Your task to perform on an android device: allow cookies in the chrome app Image 0: 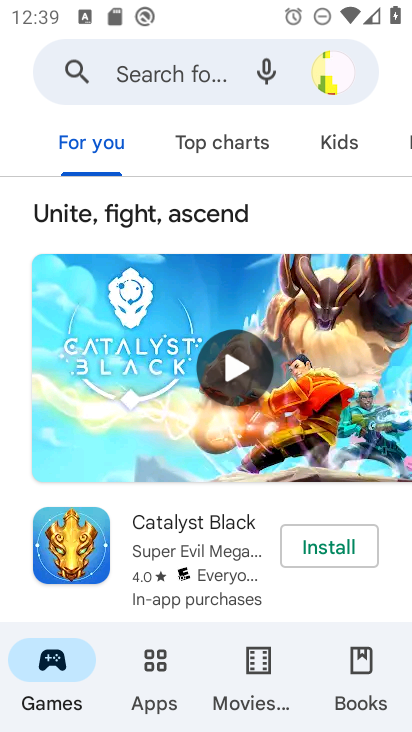
Step 0: press home button
Your task to perform on an android device: allow cookies in the chrome app Image 1: 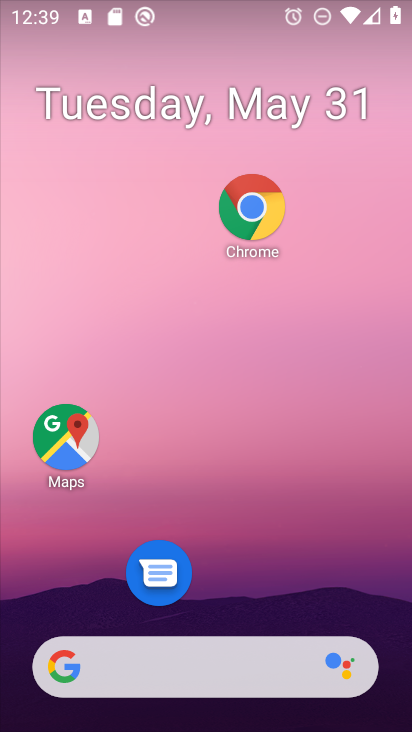
Step 1: click (257, 241)
Your task to perform on an android device: allow cookies in the chrome app Image 2: 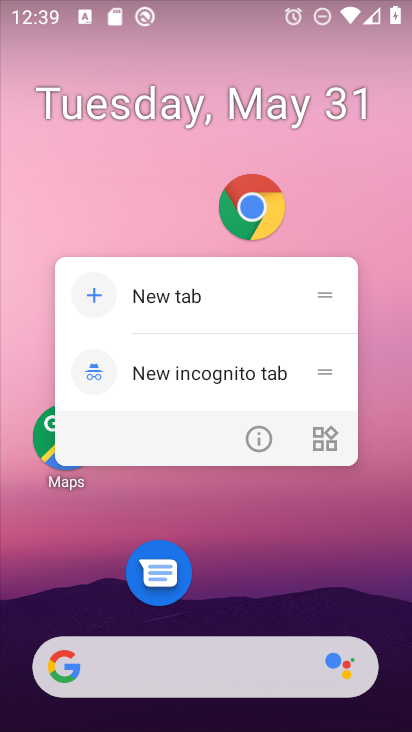
Step 2: click (256, 242)
Your task to perform on an android device: allow cookies in the chrome app Image 3: 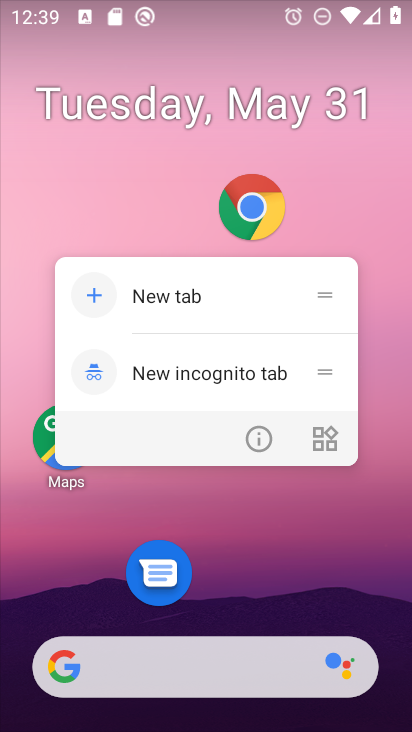
Step 3: click (250, 232)
Your task to perform on an android device: allow cookies in the chrome app Image 4: 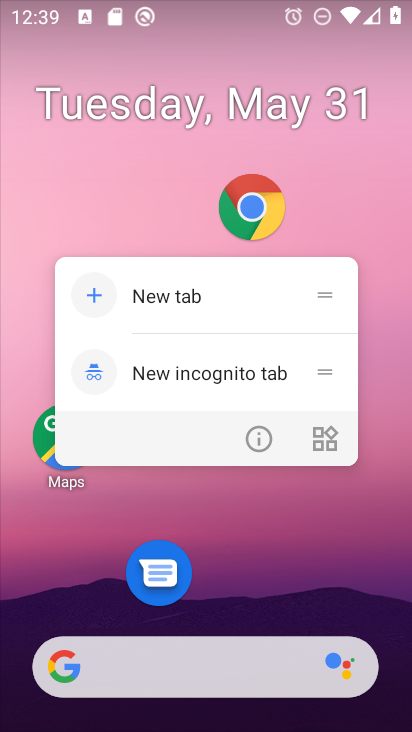
Step 4: click (246, 224)
Your task to perform on an android device: allow cookies in the chrome app Image 5: 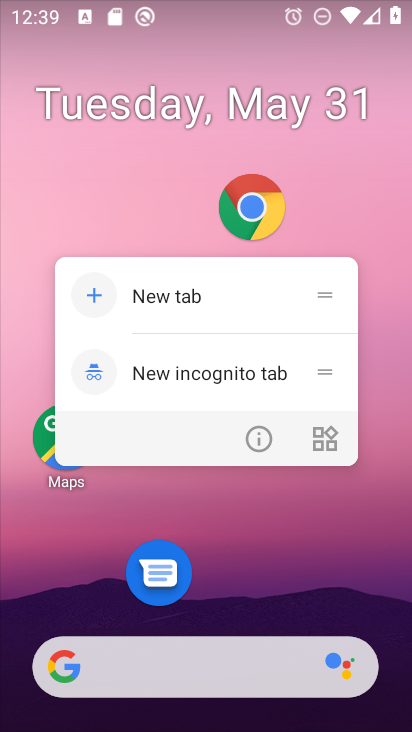
Step 5: click (253, 232)
Your task to perform on an android device: allow cookies in the chrome app Image 6: 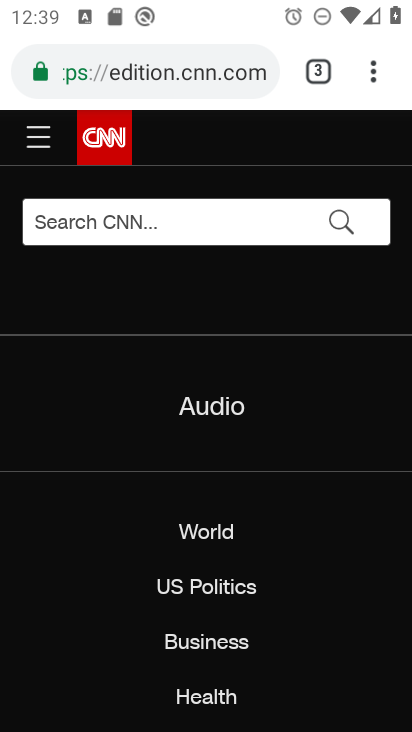
Step 6: click (374, 69)
Your task to perform on an android device: allow cookies in the chrome app Image 7: 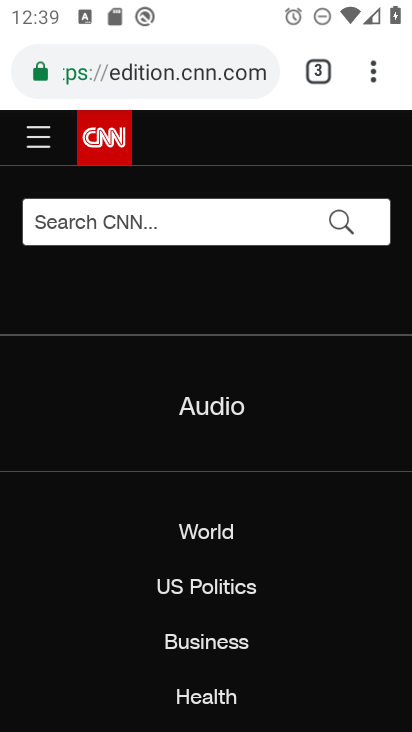
Step 7: click (375, 73)
Your task to perform on an android device: allow cookies in the chrome app Image 8: 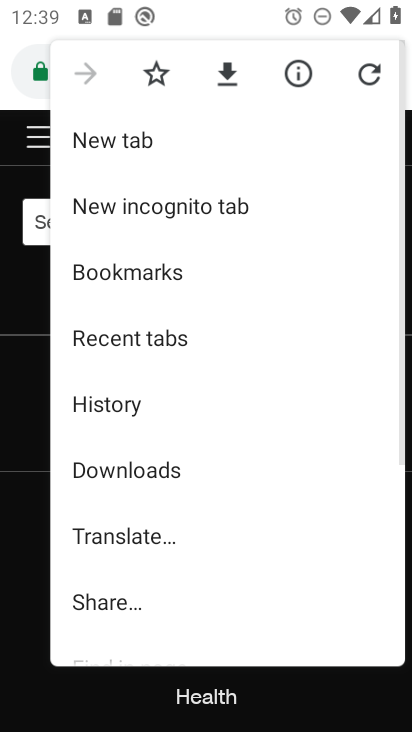
Step 8: drag from (222, 516) to (233, 187)
Your task to perform on an android device: allow cookies in the chrome app Image 9: 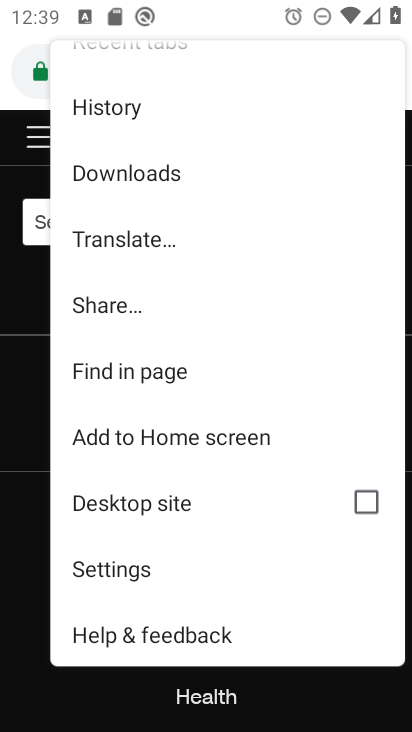
Step 9: click (123, 570)
Your task to perform on an android device: allow cookies in the chrome app Image 10: 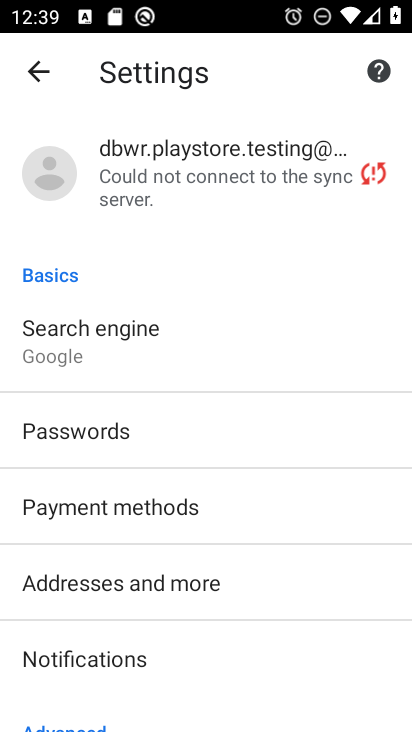
Step 10: drag from (146, 499) to (173, 189)
Your task to perform on an android device: allow cookies in the chrome app Image 11: 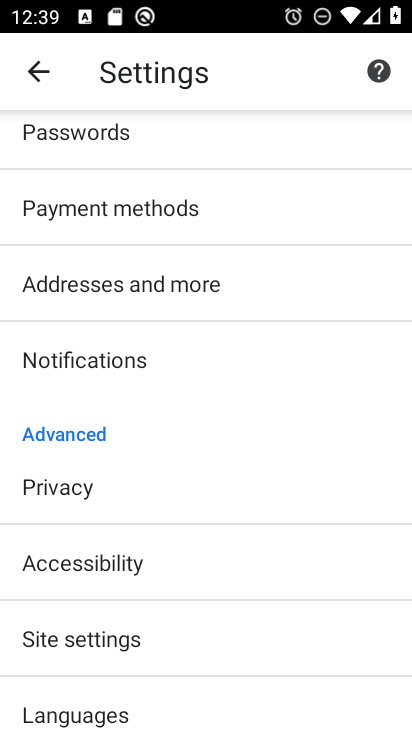
Step 11: click (132, 650)
Your task to perform on an android device: allow cookies in the chrome app Image 12: 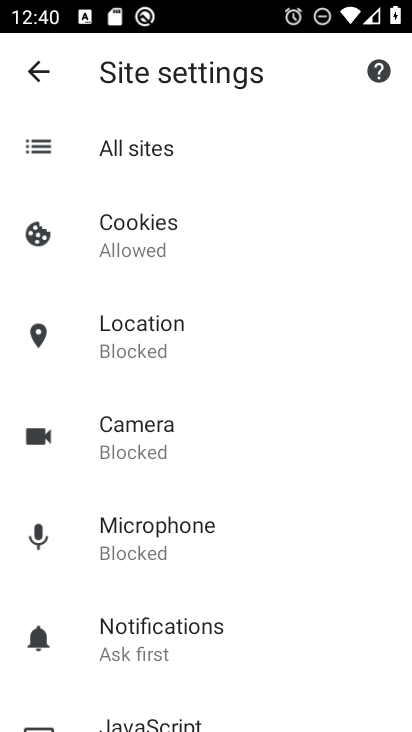
Step 12: click (149, 227)
Your task to perform on an android device: allow cookies in the chrome app Image 13: 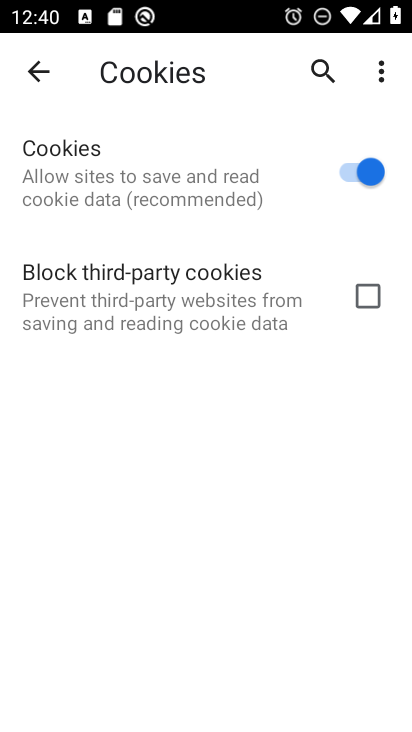
Step 13: task complete